Your task to perform on an android device: What's the weather going to be this weekend? Image 0: 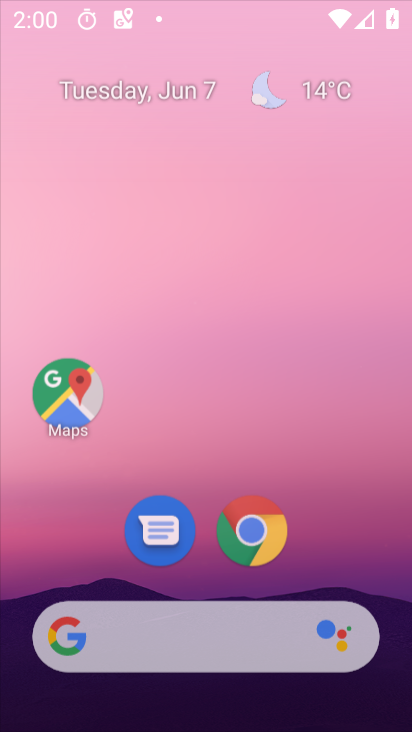
Step 0: click (255, 539)
Your task to perform on an android device: What's the weather going to be this weekend? Image 1: 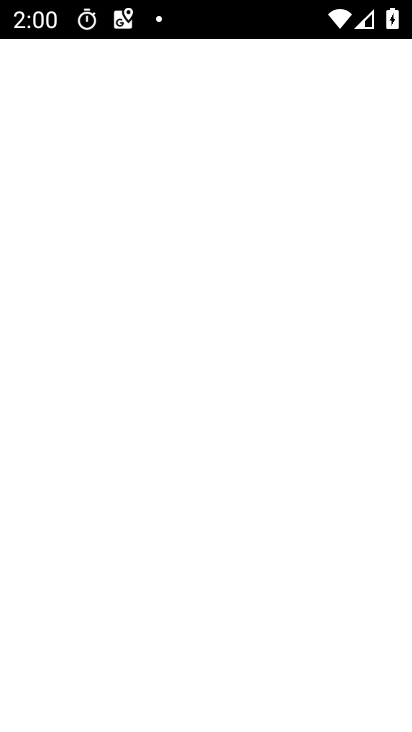
Step 1: press home button
Your task to perform on an android device: What's the weather going to be this weekend? Image 2: 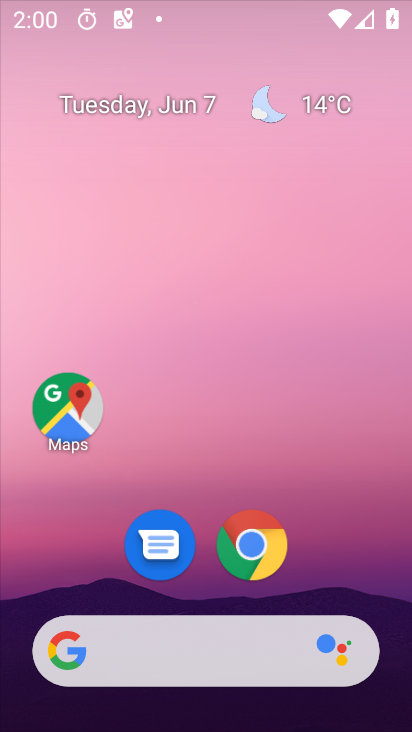
Step 2: click (76, 408)
Your task to perform on an android device: What's the weather going to be this weekend? Image 3: 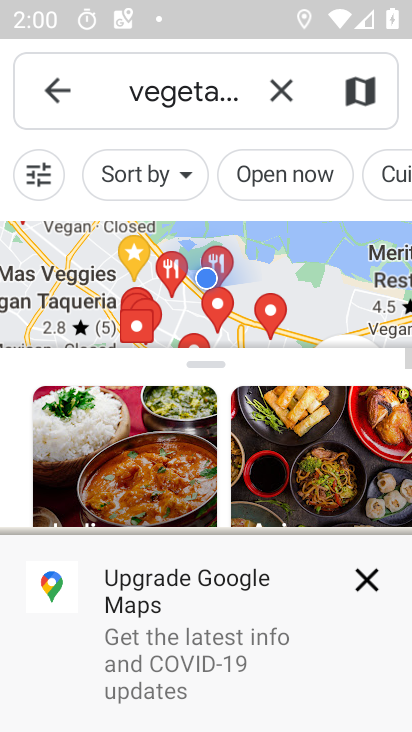
Step 3: press home button
Your task to perform on an android device: What's the weather going to be this weekend? Image 4: 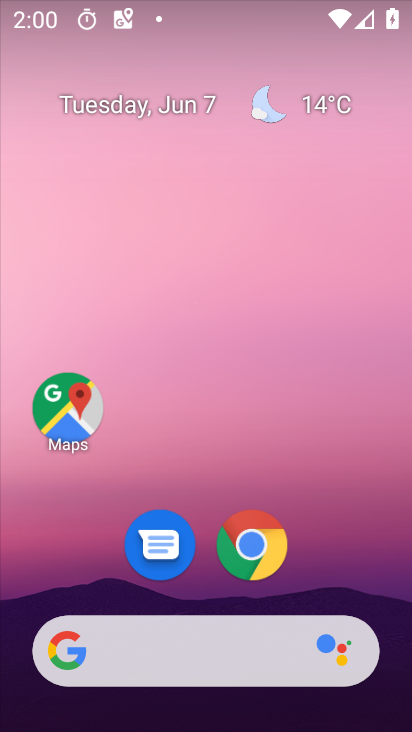
Step 4: click (324, 101)
Your task to perform on an android device: What's the weather going to be this weekend? Image 5: 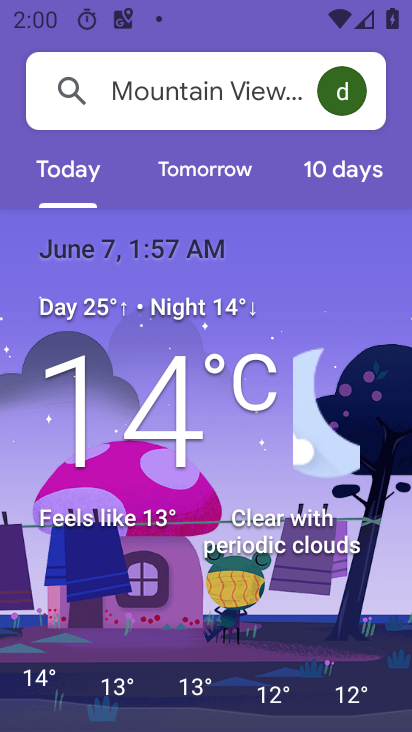
Step 5: click (346, 168)
Your task to perform on an android device: What's the weather going to be this weekend? Image 6: 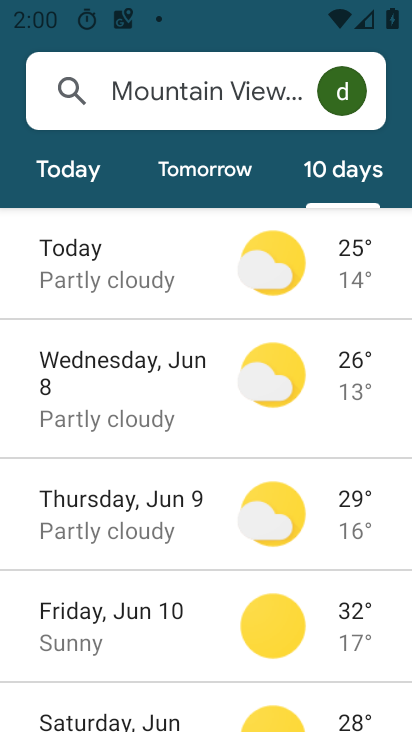
Step 6: task complete